Your task to perform on an android device: Go to location settings Image 0: 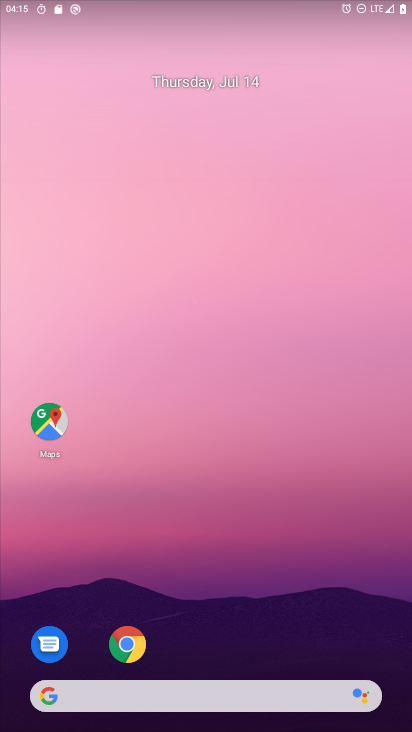
Step 0: drag from (279, 92) to (290, 24)
Your task to perform on an android device: Go to location settings Image 1: 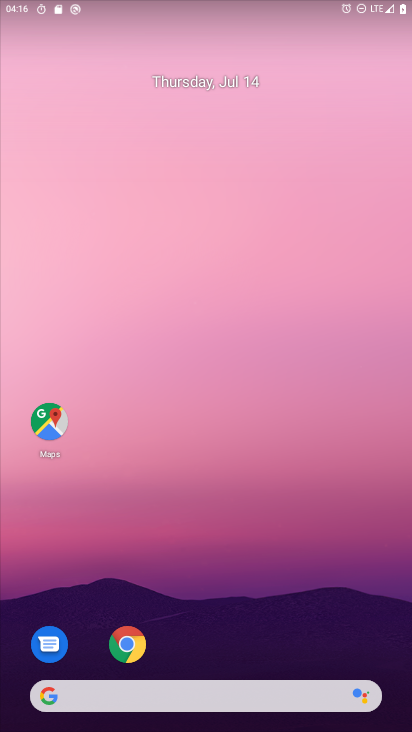
Step 1: drag from (311, 602) to (305, 110)
Your task to perform on an android device: Go to location settings Image 2: 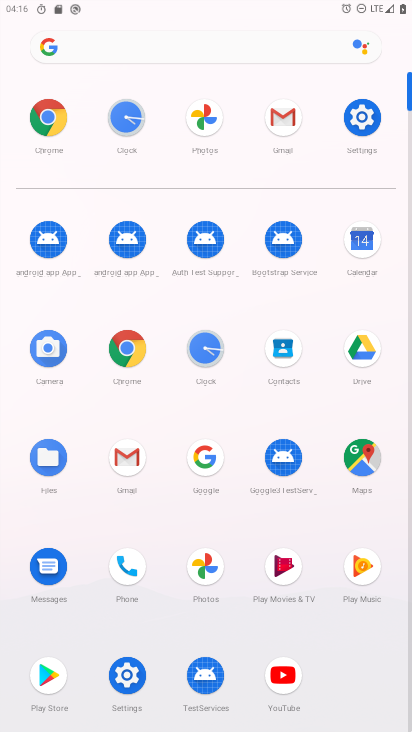
Step 2: click (360, 112)
Your task to perform on an android device: Go to location settings Image 3: 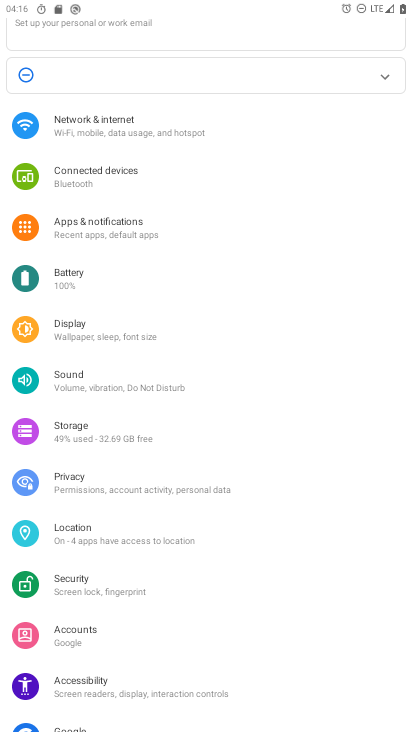
Step 3: click (127, 532)
Your task to perform on an android device: Go to location settings Image 4: 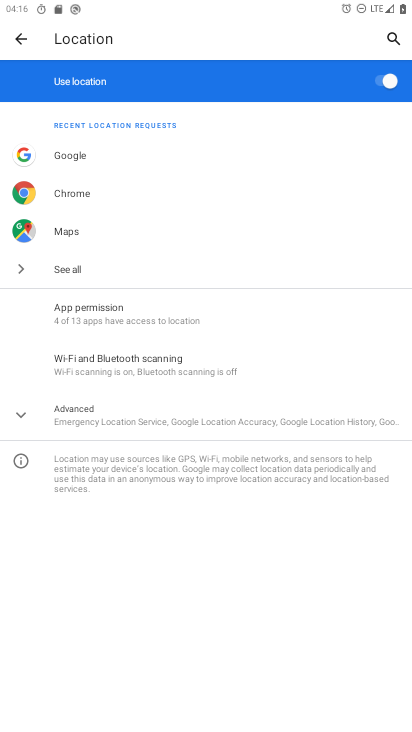
Step 4: click (151, 418)
Your task to perform on an android device: Go to location settings Image 5: 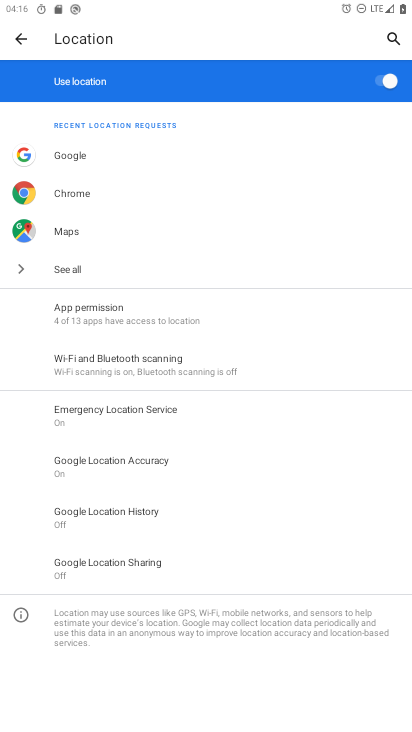
Step 5: task complete